Your task to perform on an android device: Open Google Maps and go to "Timeline" Image 0: 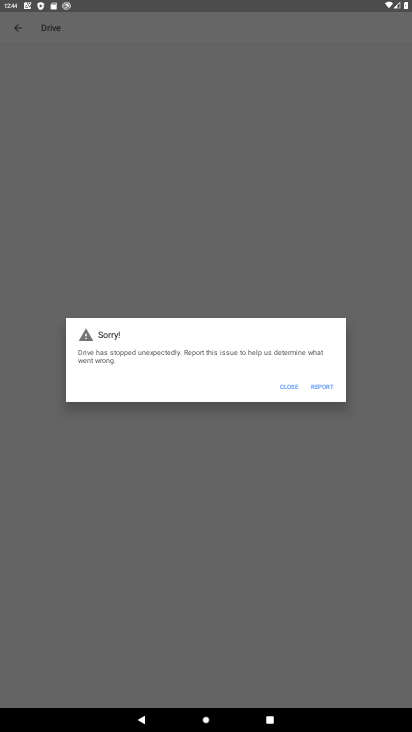
Step 0: press home button
Your task to perform on an android device: Open Google Maps and go to "Timeline" Image 1: 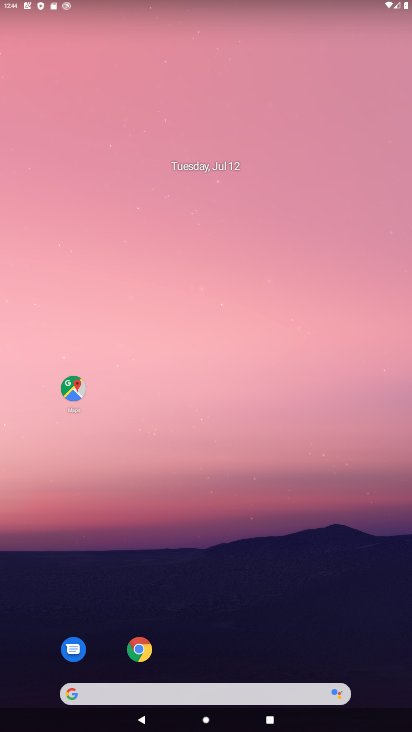
Step 1: drag from (232, 611) to (181, 101)
Your task to perform on an android device: Open Google Maps and go to "Timeline" Image 2: 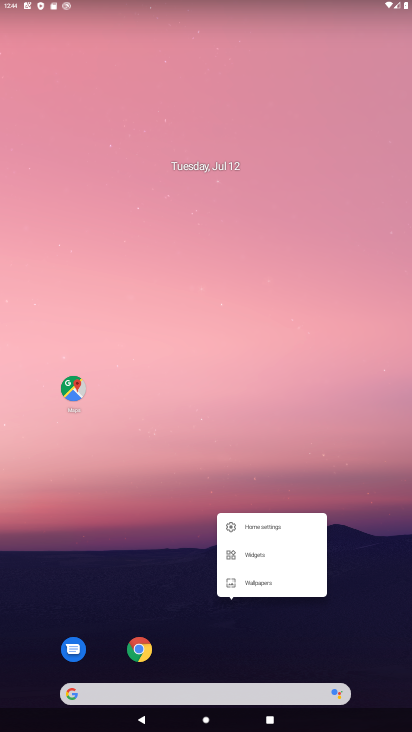
Step 2: click (136, 266)
Your task to perform on an android device: Open Google Maps and go to "Timeline" Image 3: 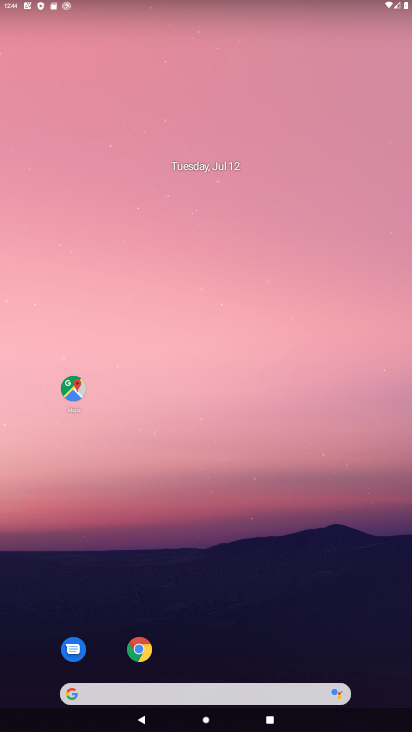
Step 3: drag from (210, 655) to (184, 87)
Your task to perform on an android device: Open Google Maps and go to "Timeline" Image 4: 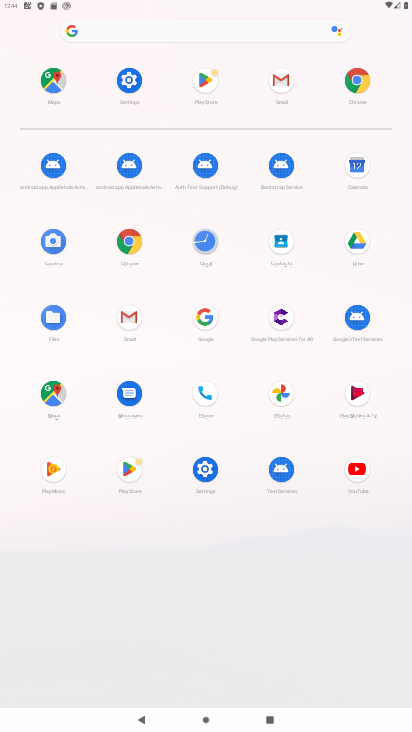
Step 4: click (43, 89)
Your task to perform on an android device: Open Google Maps and go to "Timeline" Image 5: 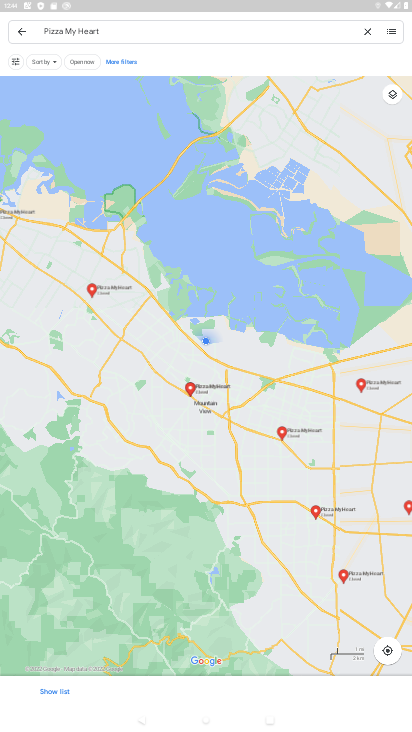
Step 5: click (22, 32)
Your task to perform on an android device: Open Google Maps and go to "Timeline" Image 6: 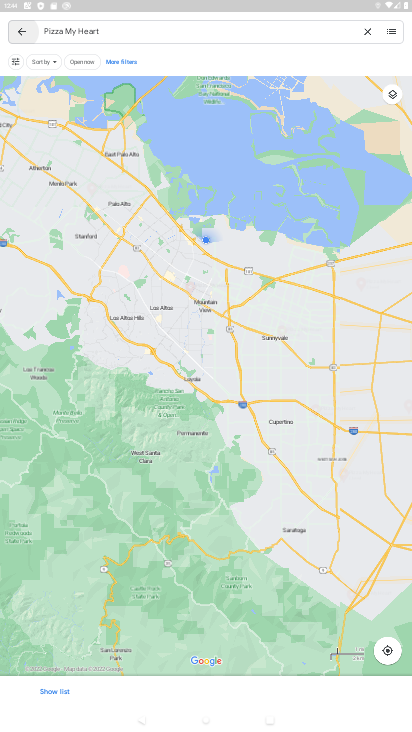
Step 6: click (22, 32)
Your task to perform on an android device: Open Google Maps and go to "Timeline" Image 7: 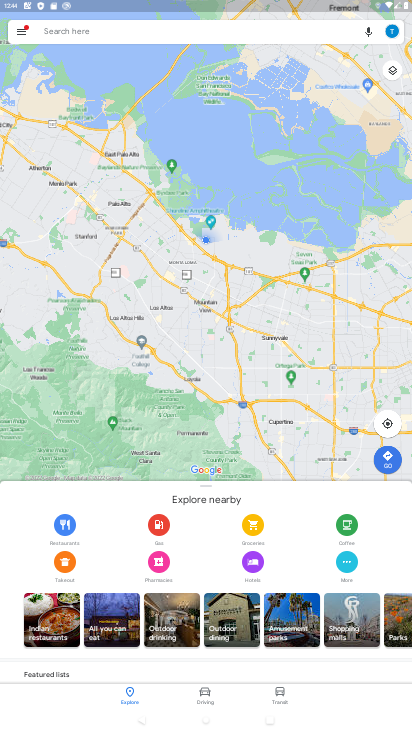
Step 7: click (22, 32)
Your task to perform on an android device: Open Google Maps and go to "Timeline" Image 8: 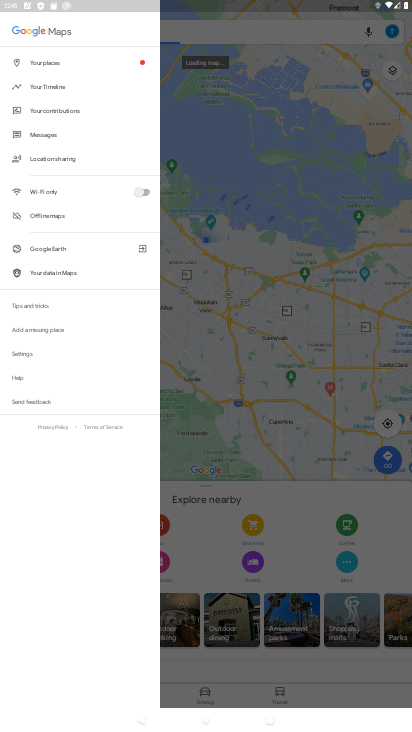
Step 8: click (58, 88)
Your task to perform on an android device: Open Google Maps and go to "Timeline" Image 9: 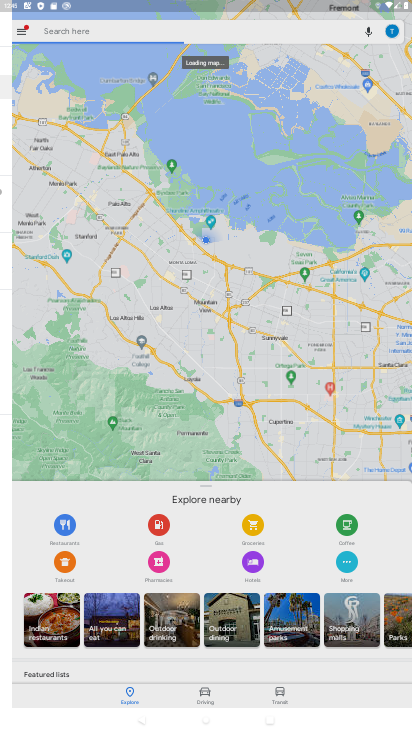
Step 9: task complete